Your task to perform on an android device: Clear the shopping cart on newegg.com. Add "apple airpods pro" to the cart on newegg.com Image 0: 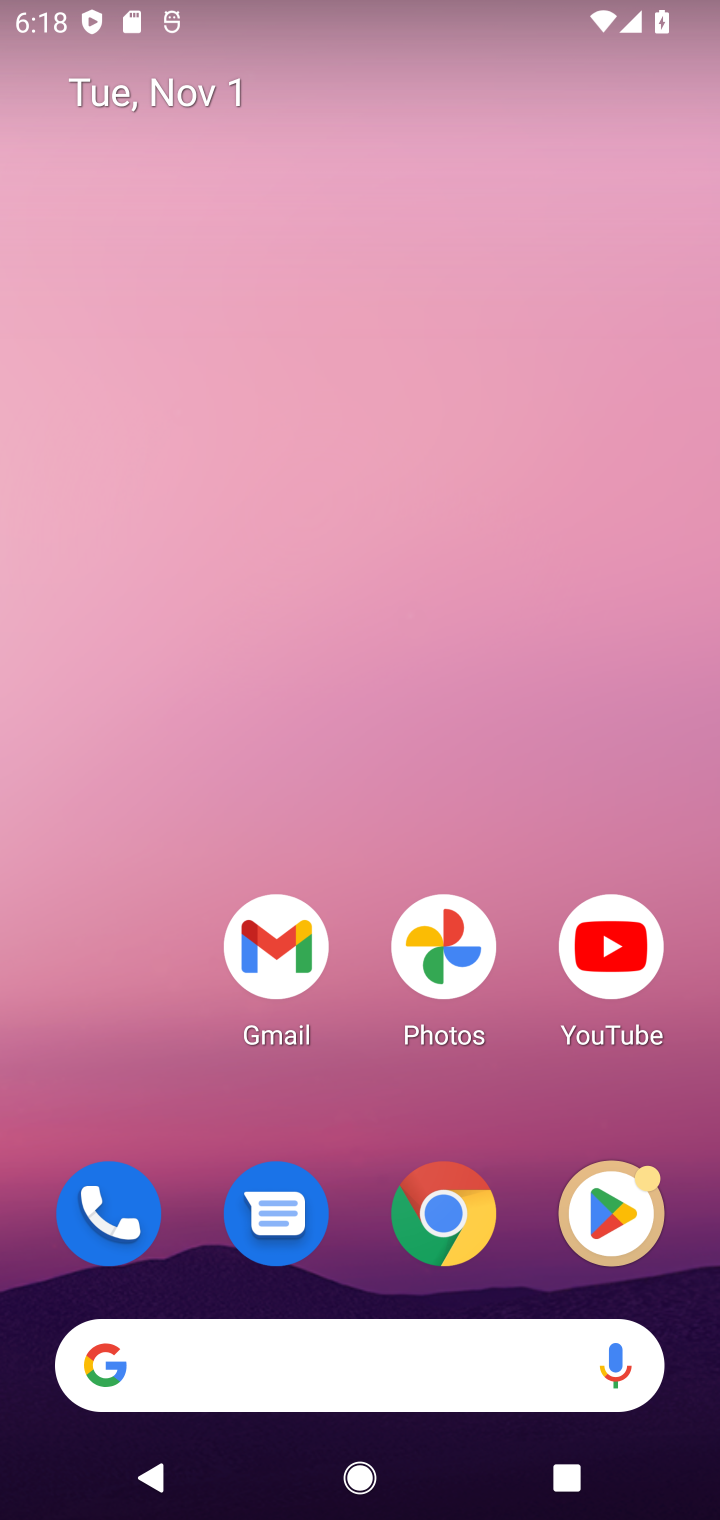
Step 0: click (450, 1206)
Your task to perform on an android device: Clear the shopping cart on newegg.com. Add "apple airpods pro" to the cart on newegg.com Image 1: 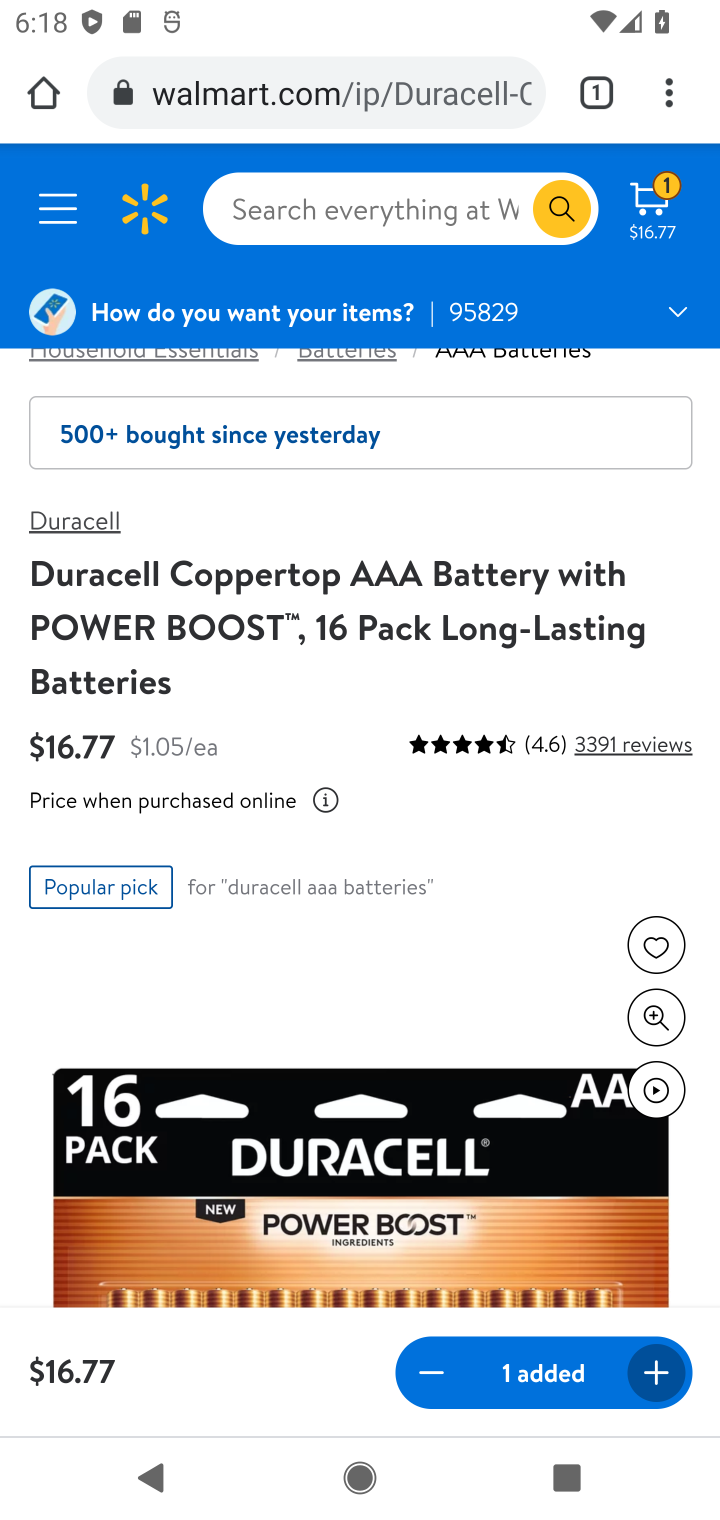
Step 1: click (310, 81)
Your task to perform on an android device: Clear the shopping cart on newegg.com. Add "apple airpods pro" to the cart on newegg.com Image 2: 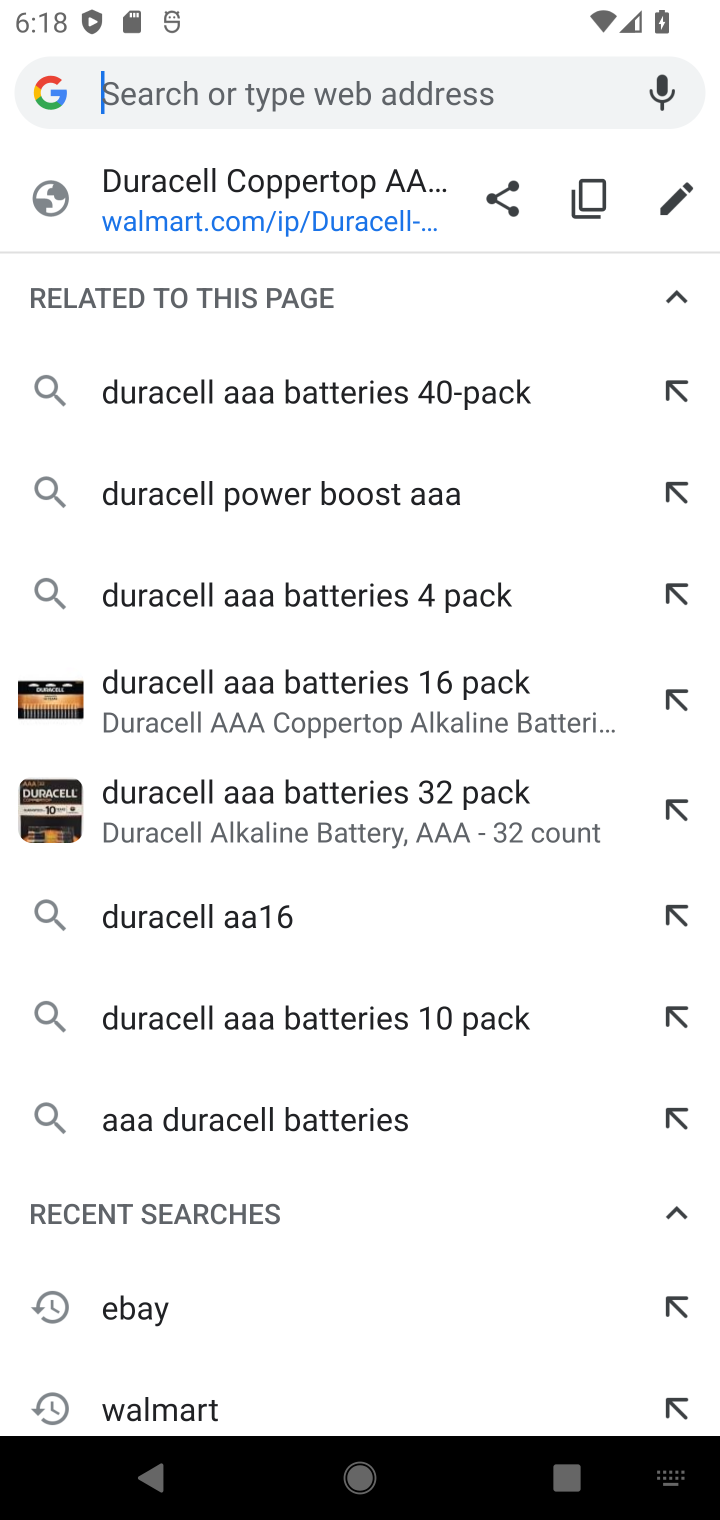
Step 2: type "newegg.com"
Your task to perform on an android device: Clear the shopping cart on newegg.com. Add "apple airpods pro" to the cart on newegg.com Image 3: 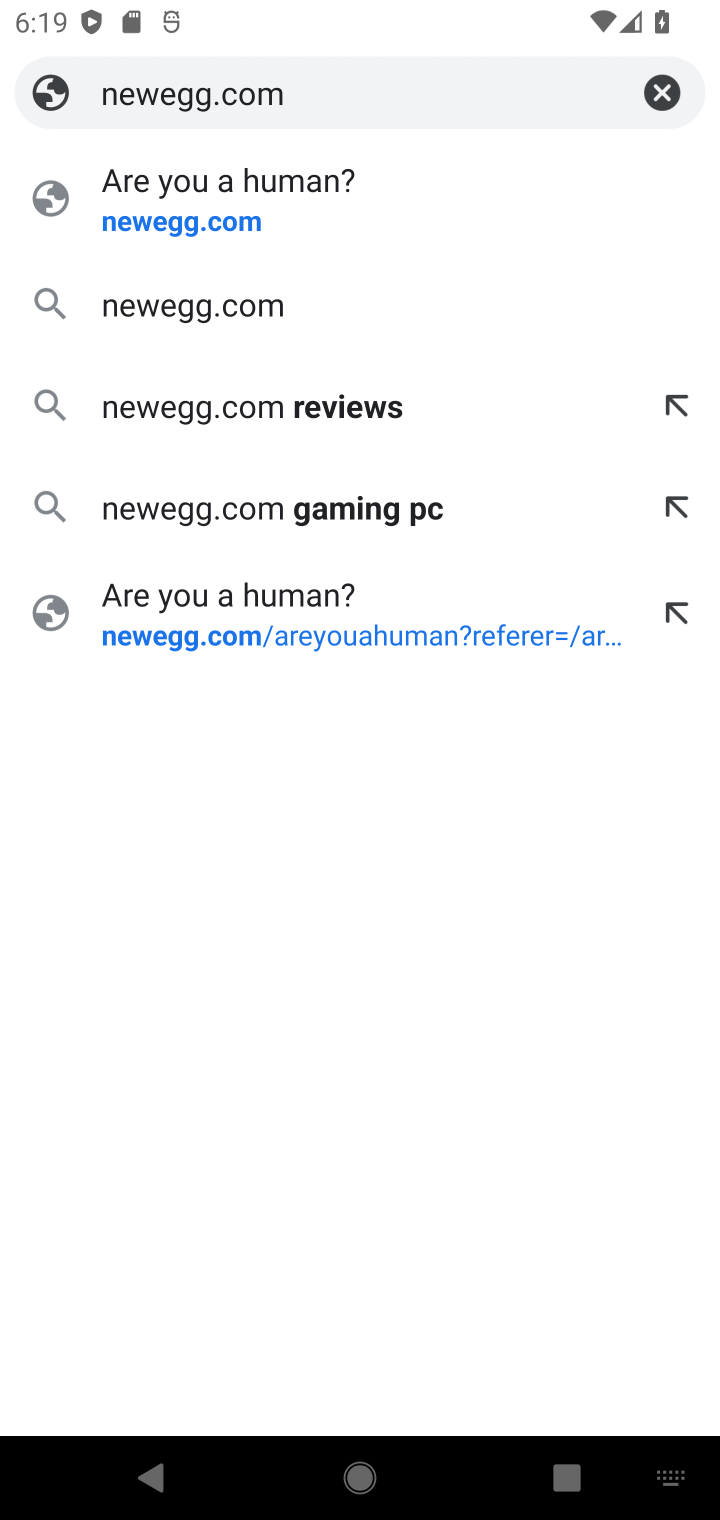
Step 3: click (219, 317)
Your task to perform on an android device: Clear the shopping cart on newegg.com. Add "apple airpods pro" to the cart on newegg.com Image 4: 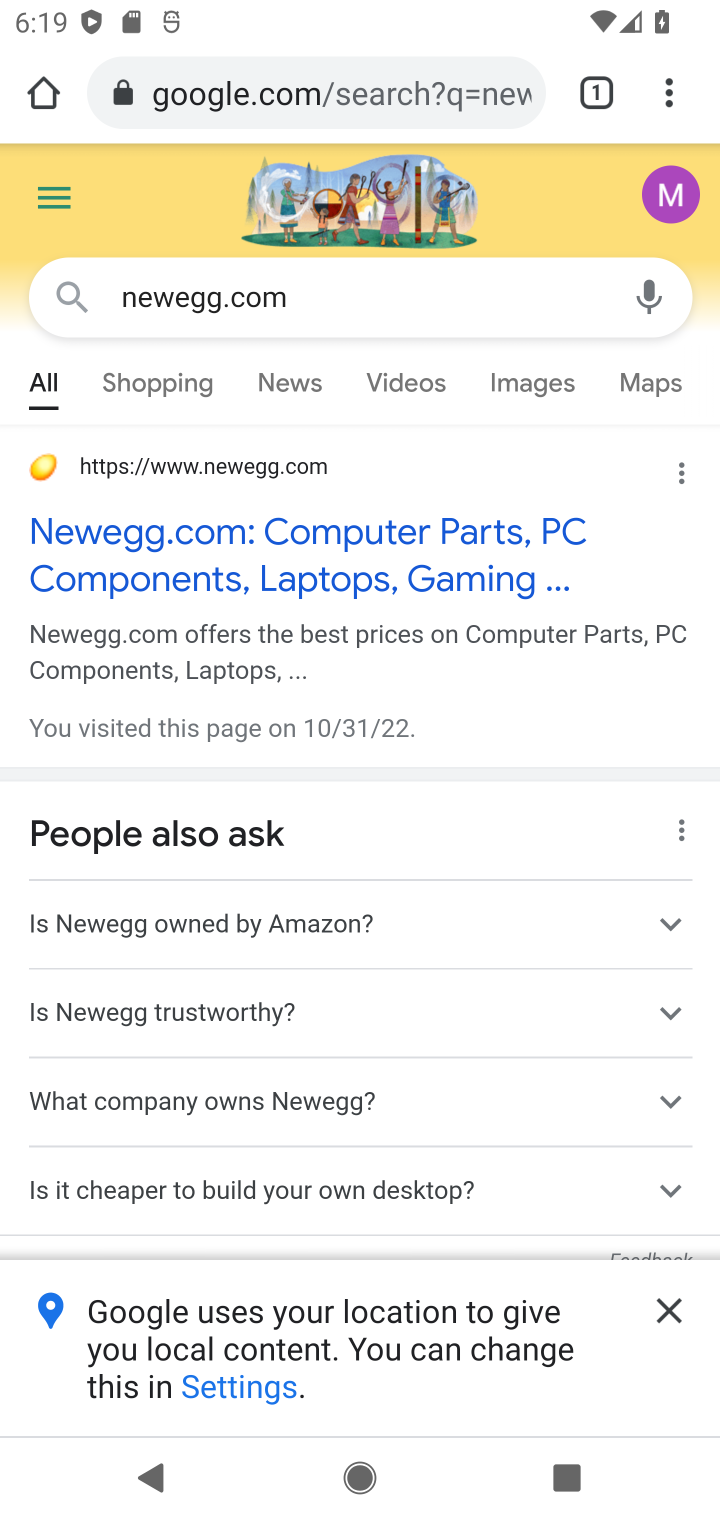
Step 4: click (238, 546)
Your task to perform on an android device: Clear the shopping cart on newegg.com. Add "apple airpods pro" to the cart on newegg.com Image 5: 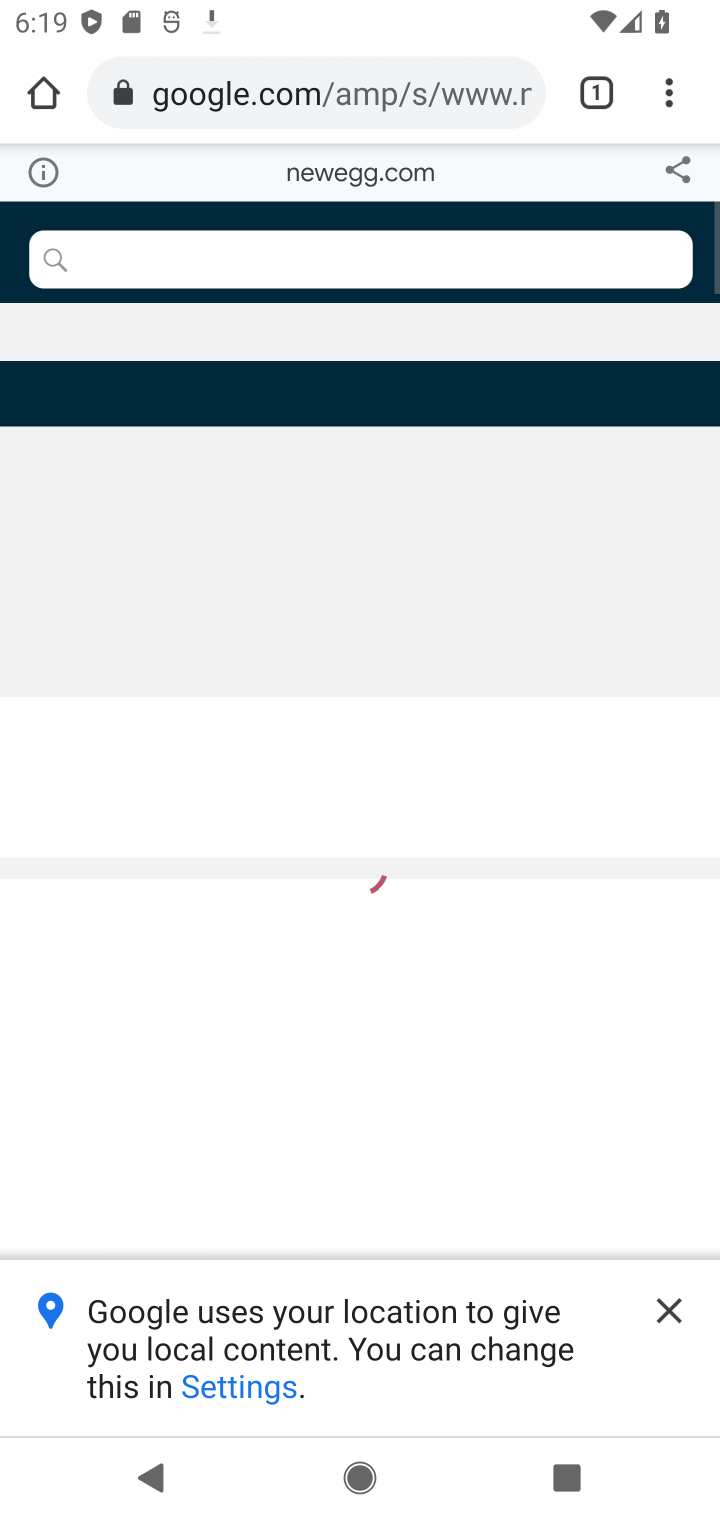
Step 5: click (665, 1312)
Your task to perform on an android device: Clear the shopping cart on newegg.com. Add "apple airpods pro" to the cart on newegg.com Image 6: 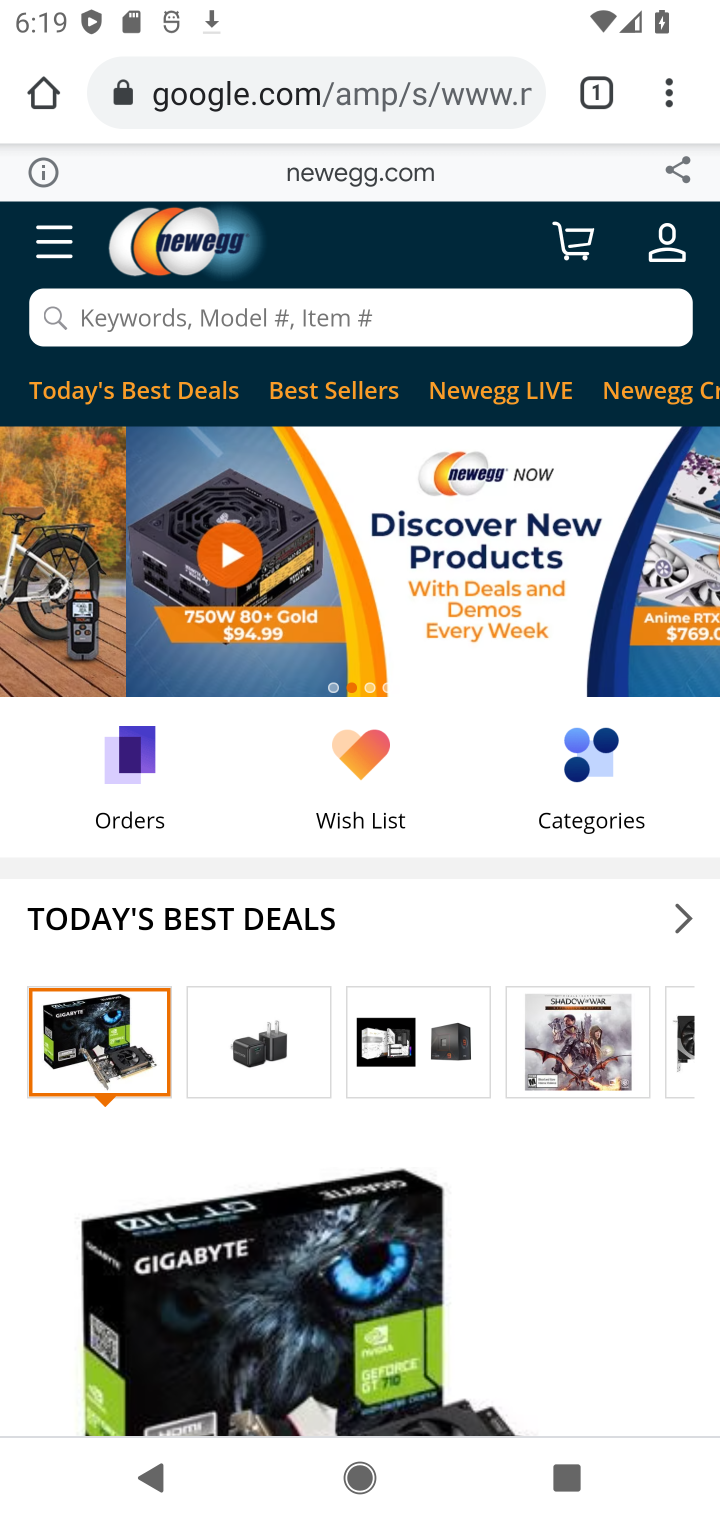
Step 6: click (371, 316)
Your task to perform on an android device: Clear the shopping cart on newegg.com. Add "apple airpods pro" to the cart on newegg.com Image 7: 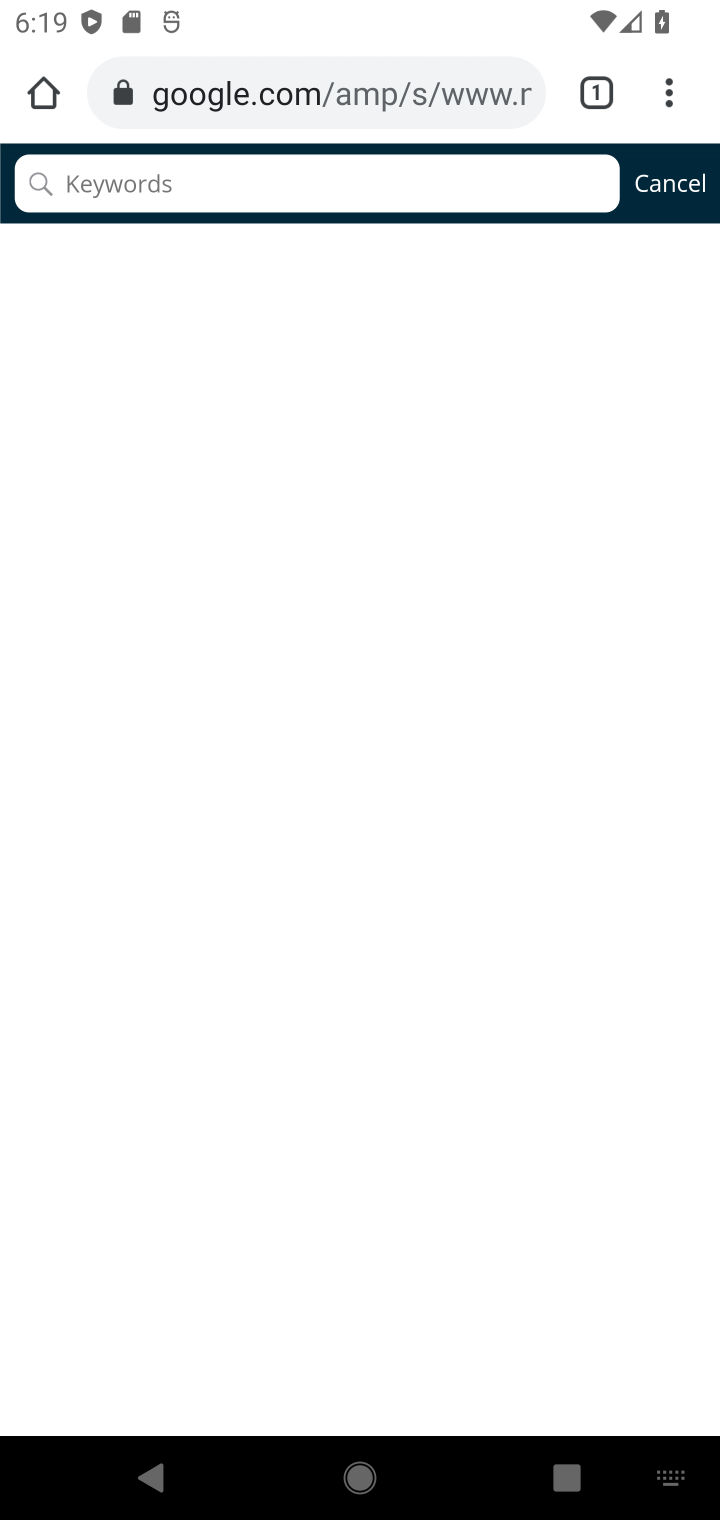
Step 7: type "apple airpods pro"
Your task to perform on an android device: Clear the shopping cart on newegg.com. Add "apple airpods pro" to the cart on newegg.com Image 8: 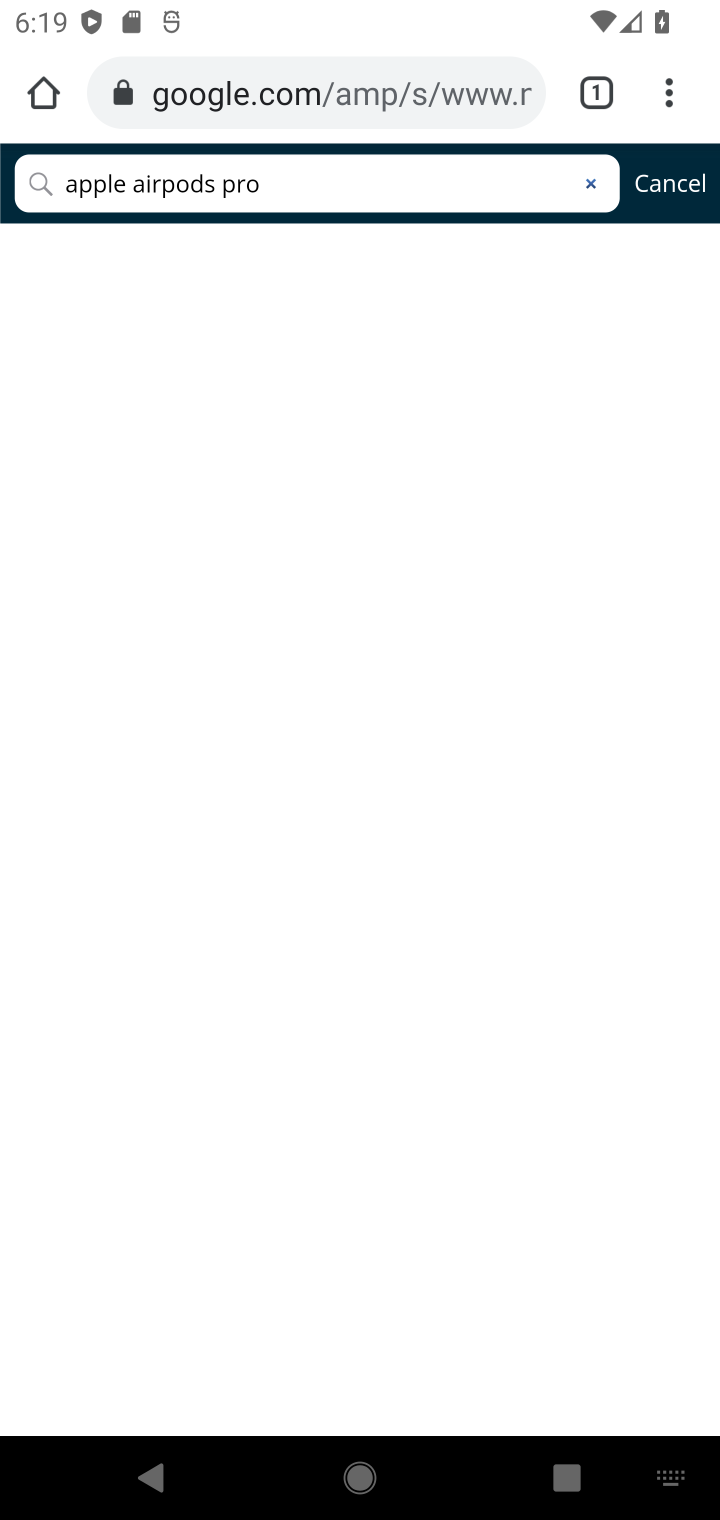
Step 8: click (41, 184)
Your task to perform on an android device: Clear the shopping cart on newegg.com. Add "apple airpods pro" to the cart on newegg.com Image 9: 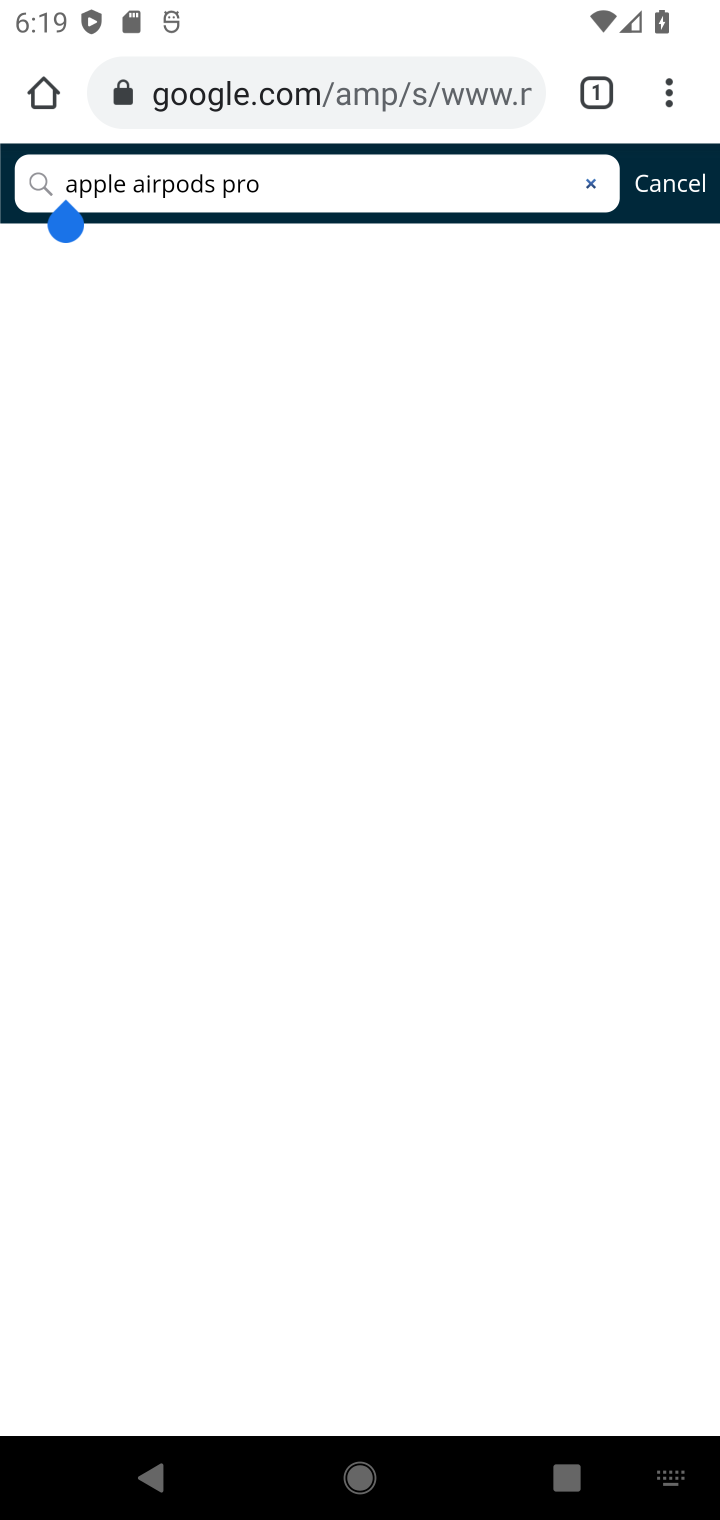
Step 9: click (590, 195)
Your task to perform on an android device: Clear the shopping cart on newegg.com. Add "apple airpods pro" to the cart on newegg.com Image 10: 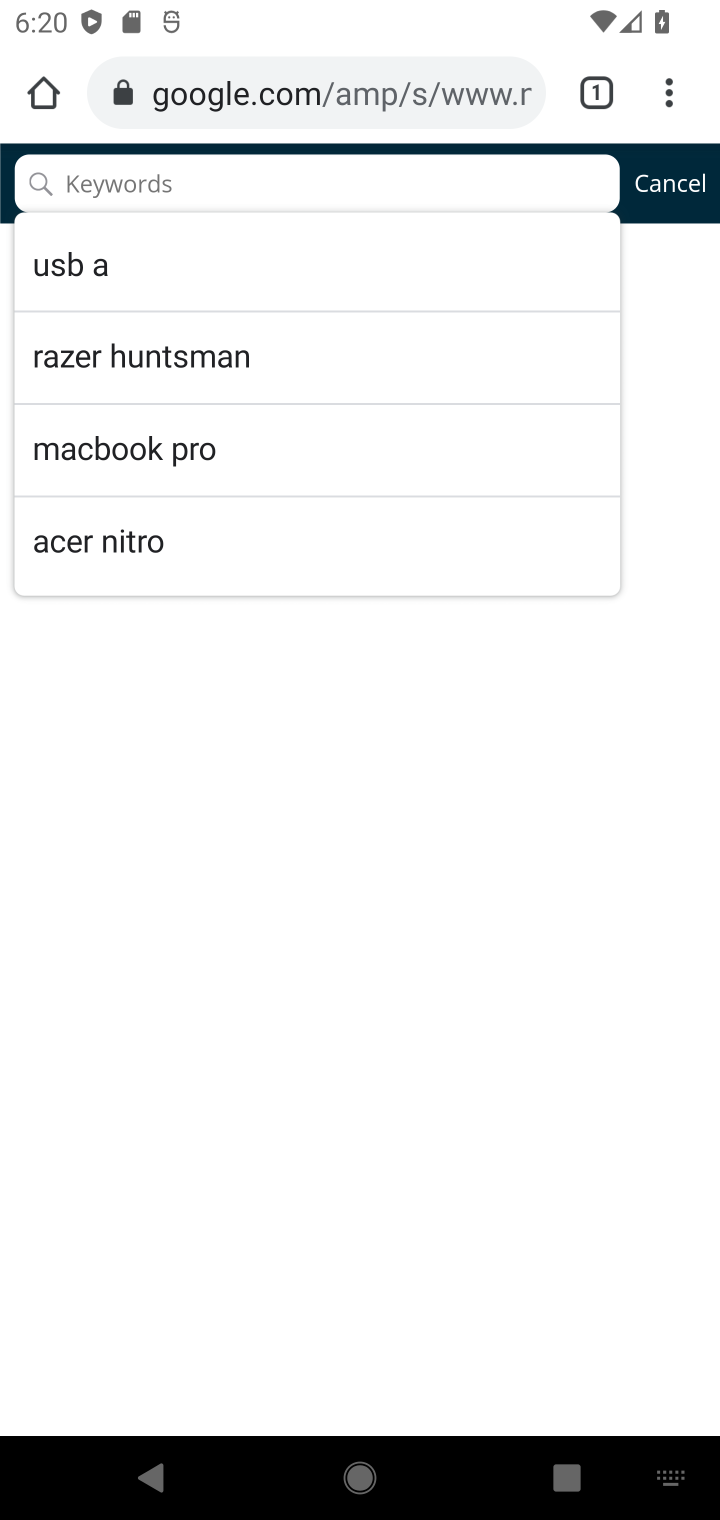
Step 10: type "airpods"
Your task to perform on an android device: Clear the shopping cart on newegg.com. Add "apple airpods pro" to the cart on newegg.com Image 11: 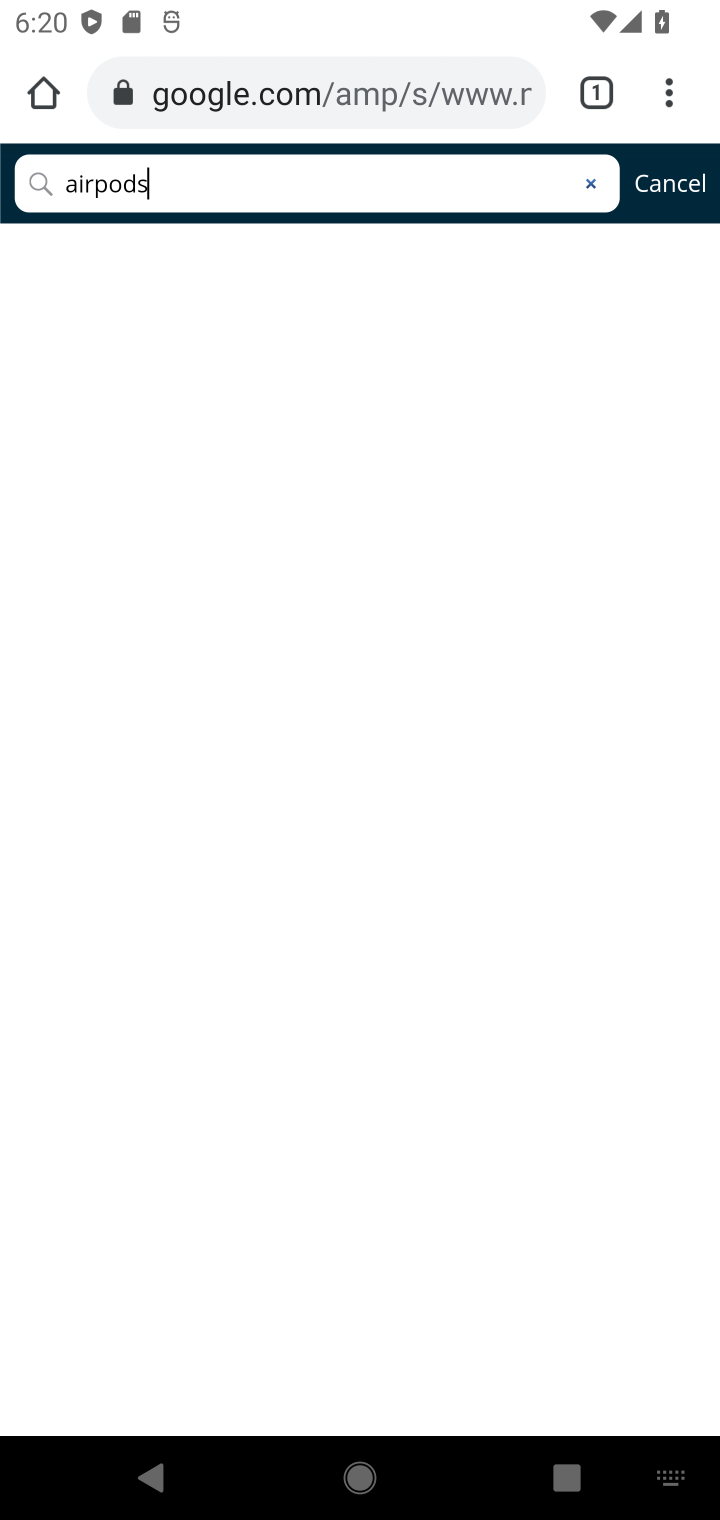
Step 11: click (43, 194)
Your task to perform on an android device: Clear the shopping cart on newegg.com. Add "apple airpods pro" to the cart on newegg.com Image 12: 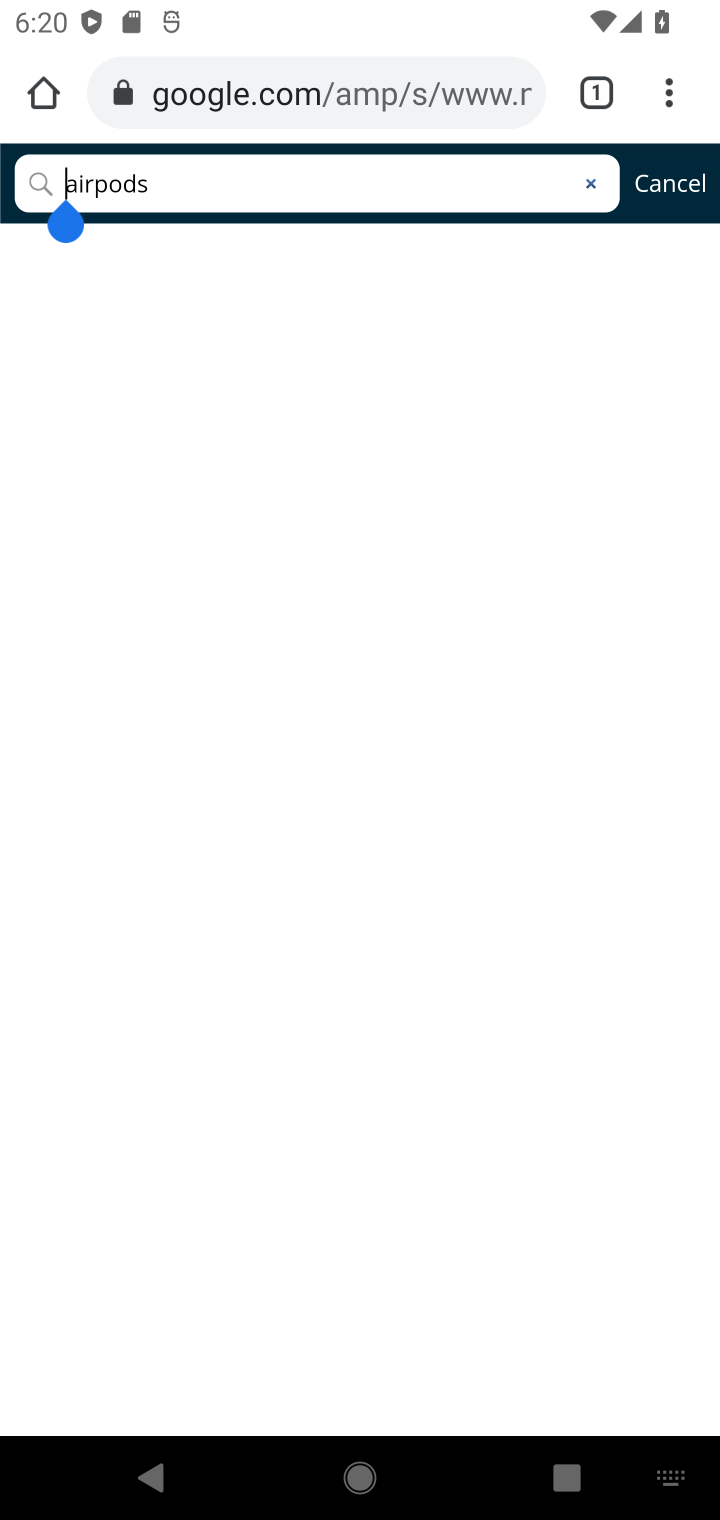
Step 12: task complete